Your task to perform on an android device: add a label to a message in the gmail app Image 0: 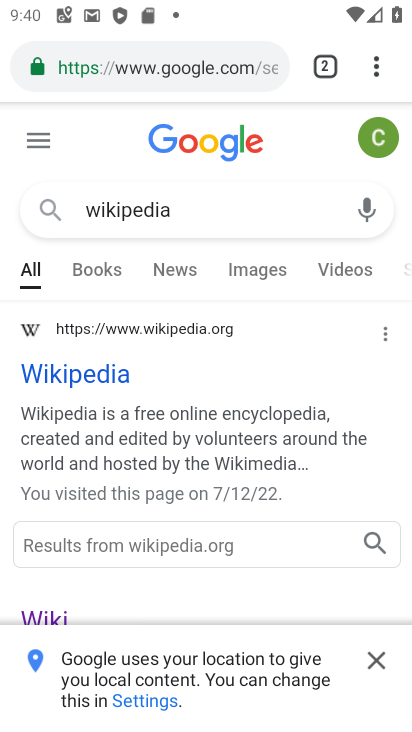
Step 0: press home button
Your task to perform on an android device: add a label to a message in the gmail app Image 1: 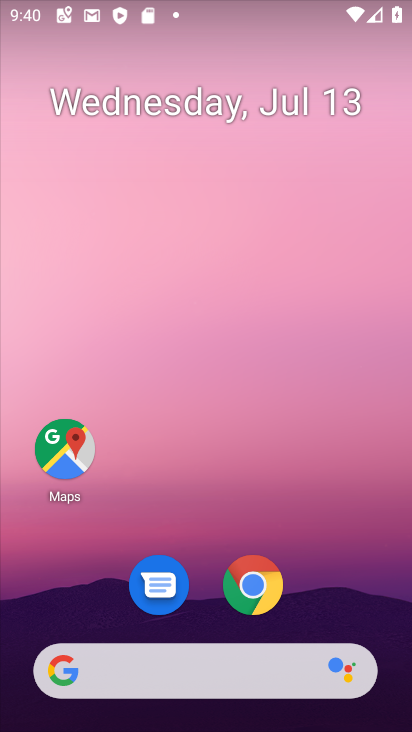
Step 1: drag from (223, 519) to (203, 43)
Your task to perform on an android device: add a label to a message in the gmail app Image 2: 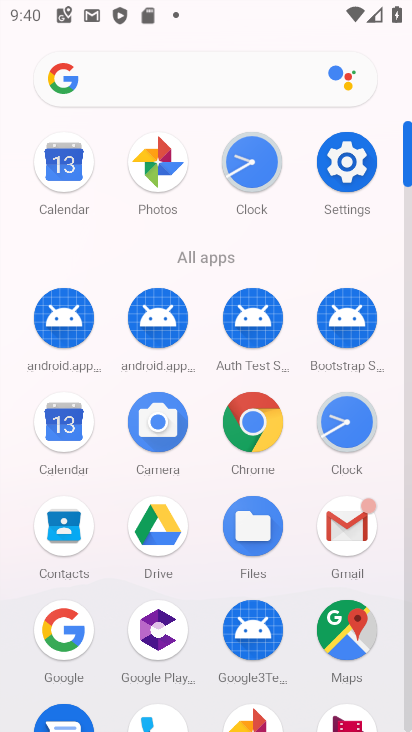
Step 2: click (340, 521)
Your task to perform on an android device: add a label to a message in the gmail app Image 3: 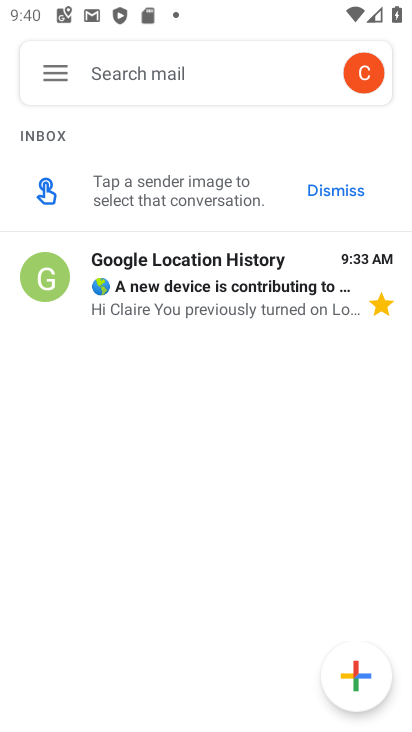
Step 3: click (122, 279)
Your task to perform on an android device: add a label to a message in the gmail app Image 4: 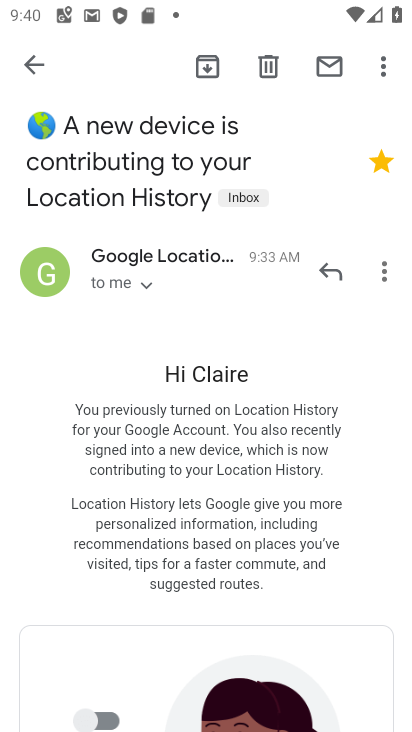
Step 4: click (380, 63)
Your task to perform on an android device: add a label to a message in the gmail app Image 5: 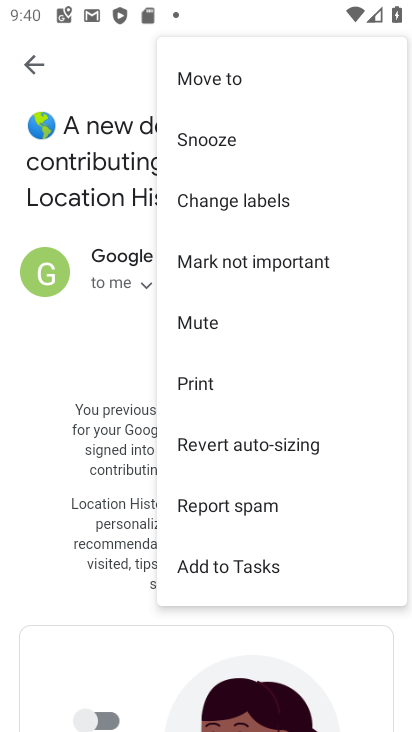
Step 5: click (268, 195)
Your task to perform on an android device: add a label to a message in the gmail app Image 6: 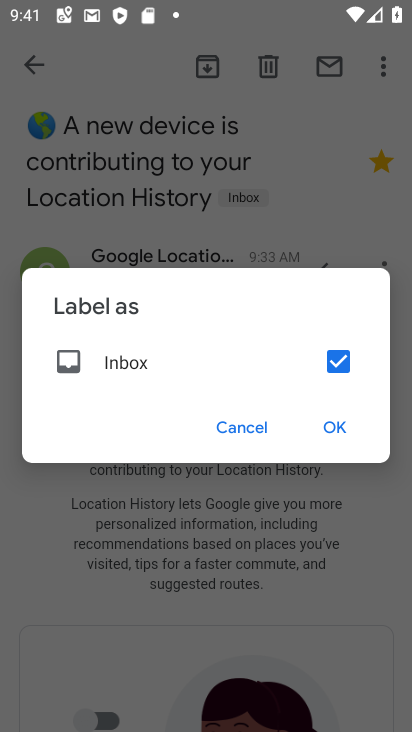
Step 6: click (330, 422)
Your task to perform on an android device: add a label to a message in the gmail app Image 7: 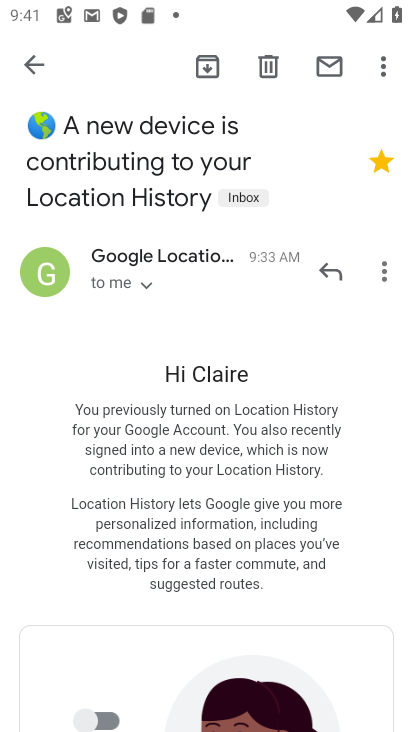
Step 7: task complete